Your task to perform on an android device: Look up the best rated coffee maker on Lowe's. Image 0: 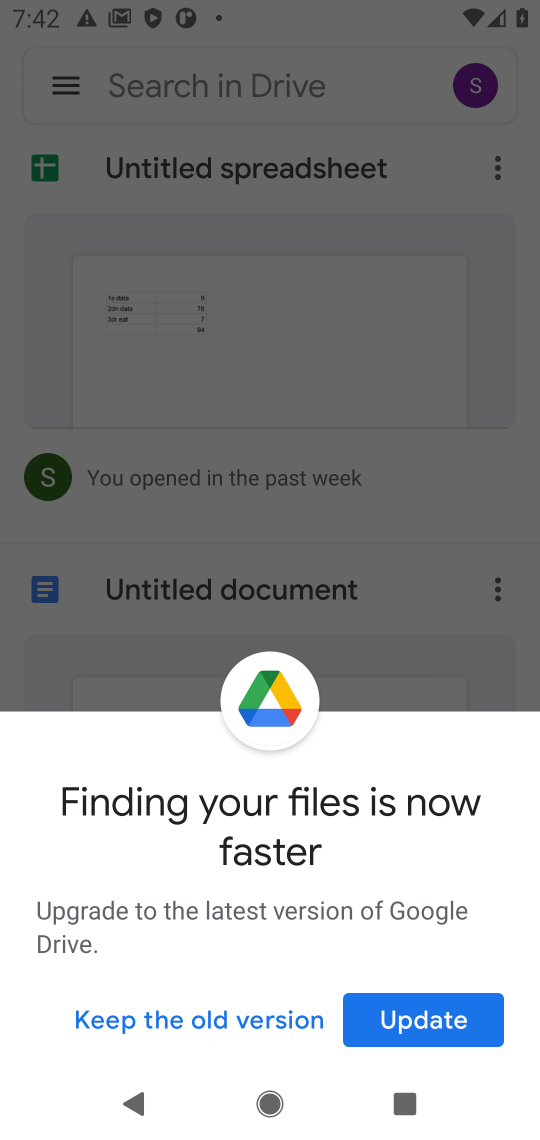
Step 0: press home button
Your task to perform on an android device: Look up the best rated coffee maker on Lowe's. Image 1: 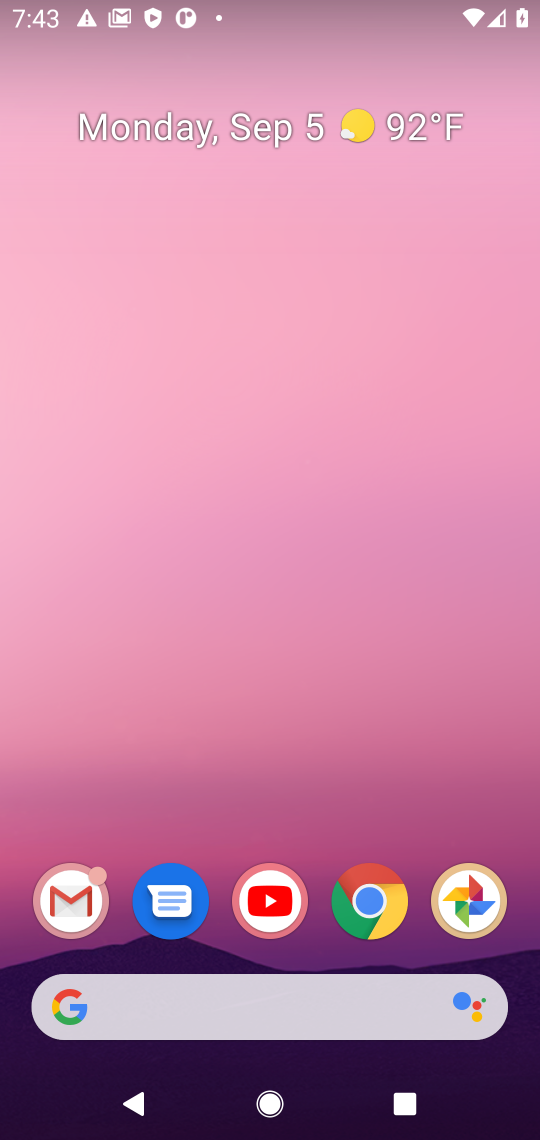
Step 1: click (363, 911)
Your task to perform on an android device: Look up the best rated coffee maker on Lowe's. Image 2: 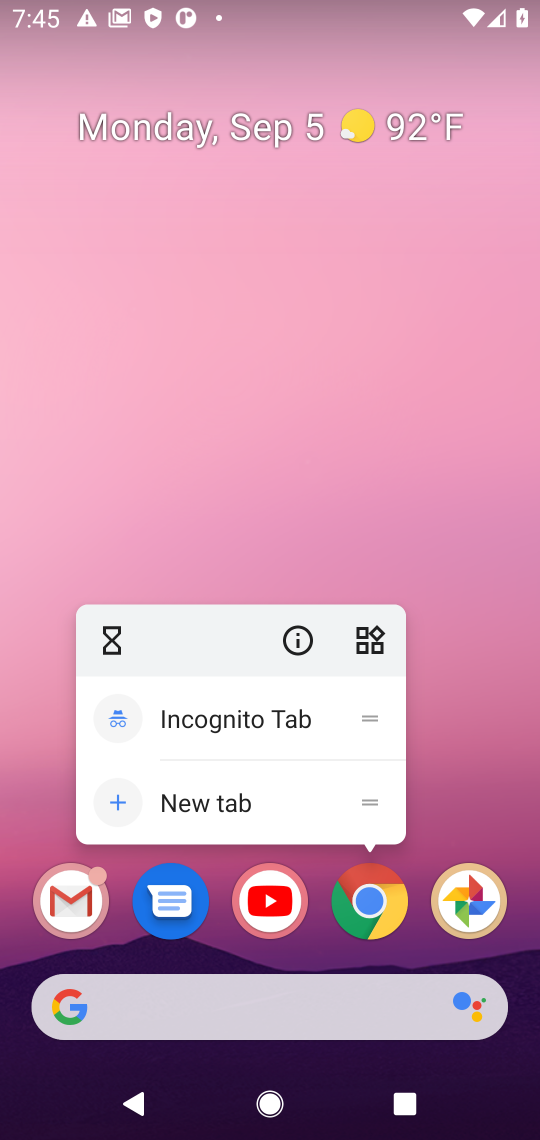
Step 2: click (354, 920)
Your task to perform on an android device: Look up the best rated coffee maker on Lowe's. Image 3: 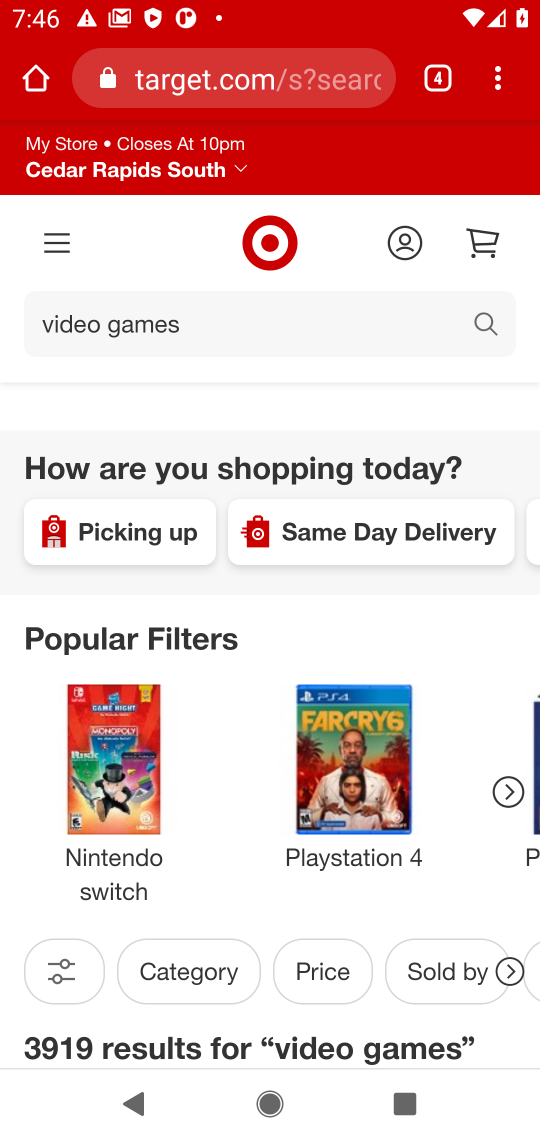
Step 3: click (270, 69)
Your task to perform on an android device: Look up the best rated coffee maker on Lowe's. Image 4: 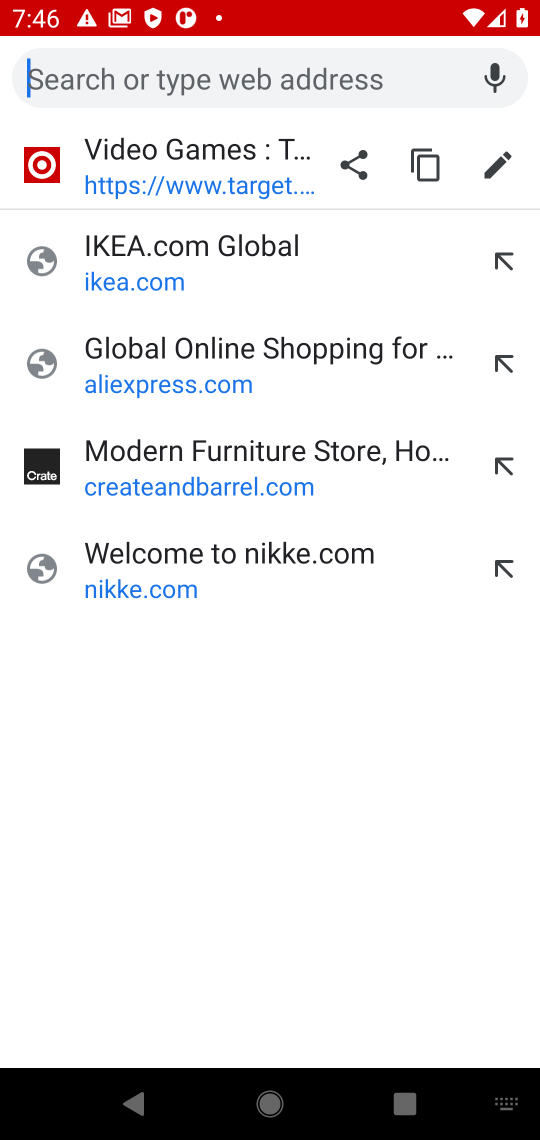
Step 4: type "lowes"
Your task to perform on an android device: Look up the best rated coffee maker on Lowe's. Image 5: 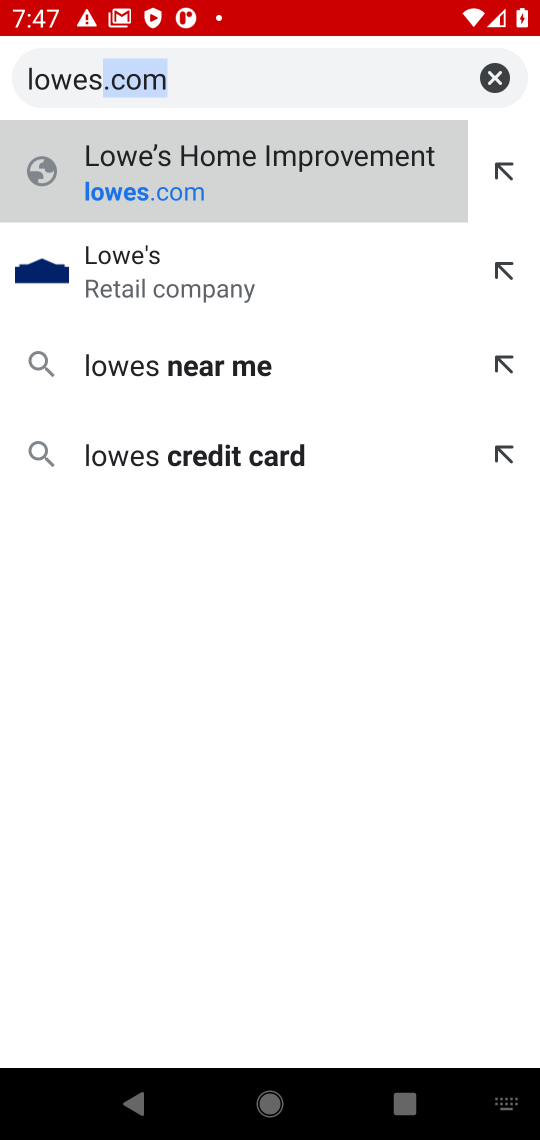
Step 5: click (126, 175)
Your task to perform on an android device: Look up the best rated coffee maker on Lowe's. Image 6: 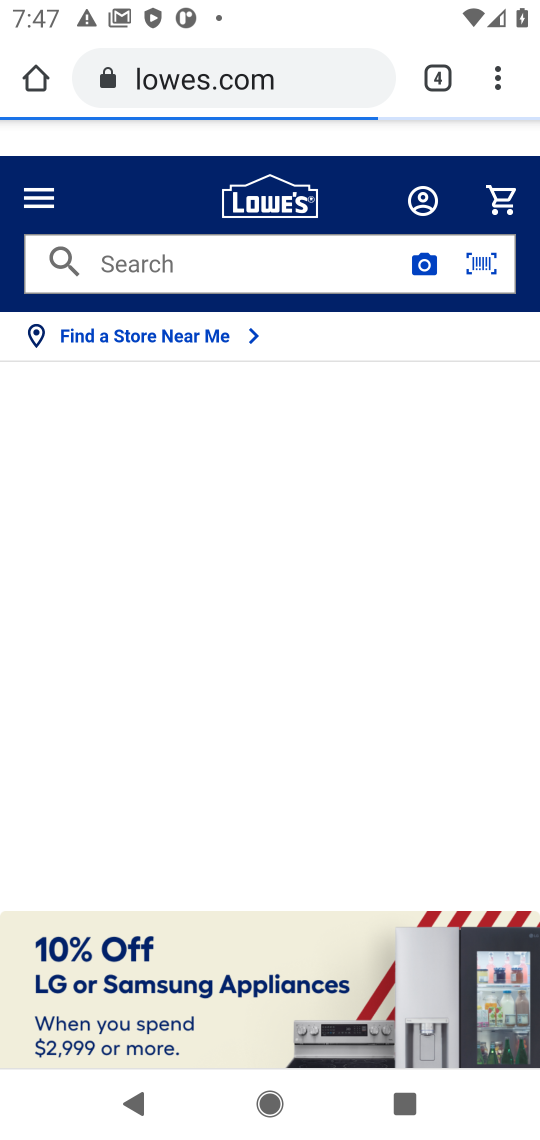
Step 6: click (263, 274)
Your task to perform on an android device: Look up the best rated coffee maker on Lowe's. Image 7: 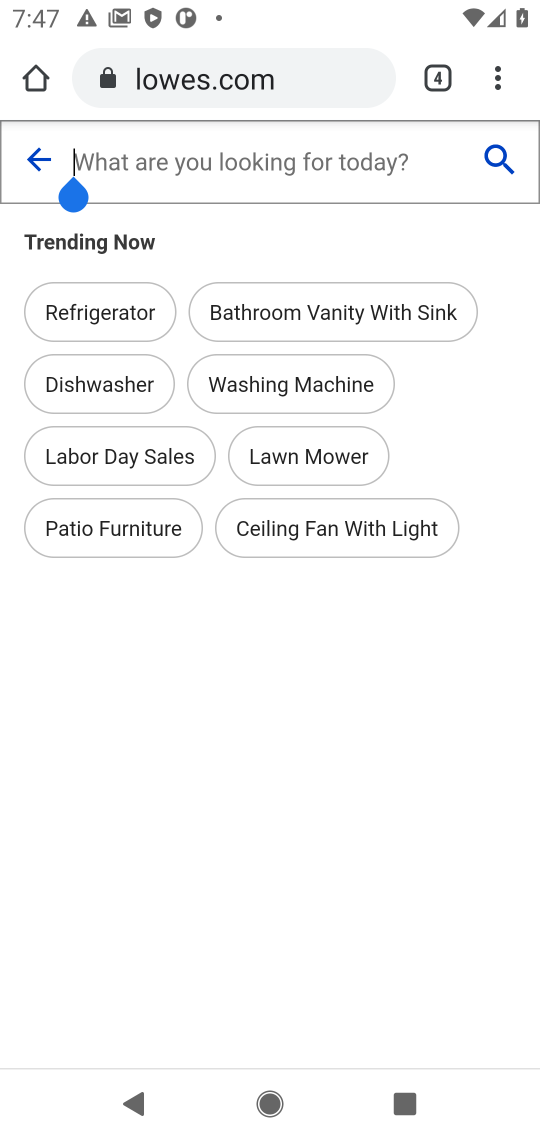
Step 7: type "coffee maker"
Your task to perform on an android device: Look up the best rated coffee maker on Lowe's. Image 8: 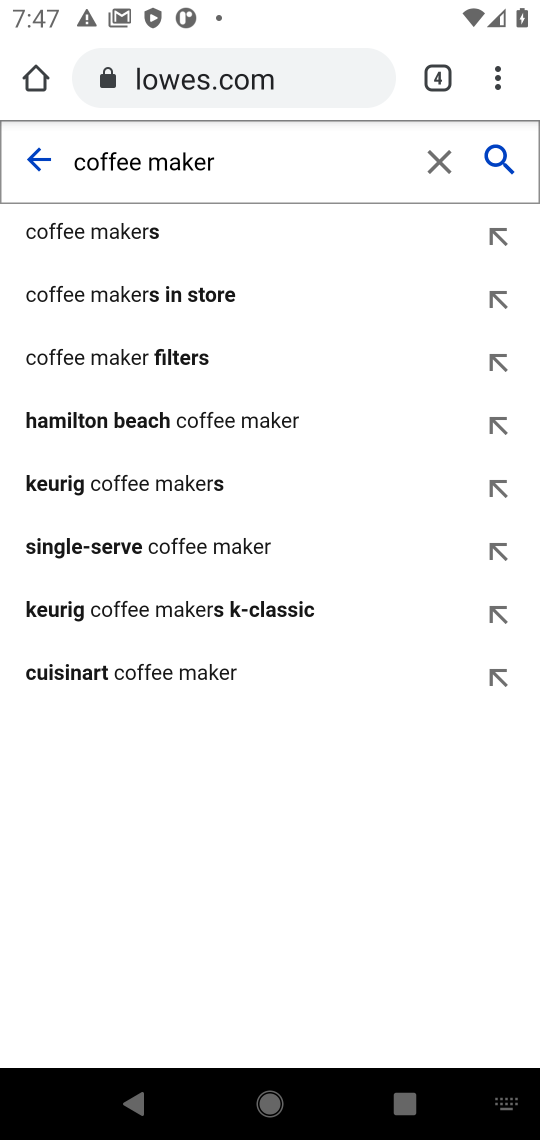
Step 8: click (102, 205)
Your task to perform on an android device: Look up the best rated coffee maker on Lowe's. Image 9: 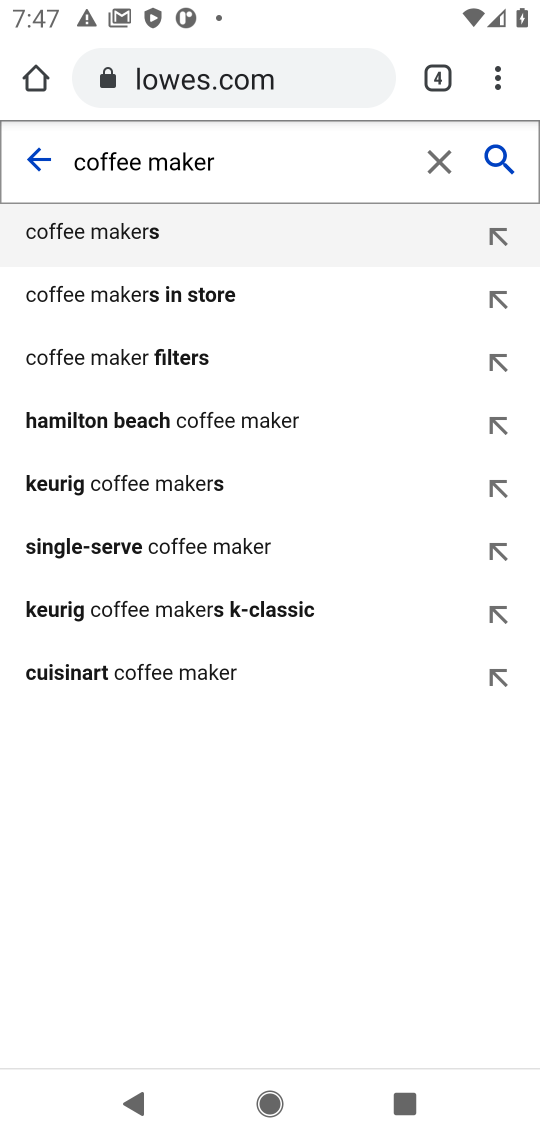
Step 9: task complete